Your task to perform on an android device: Show me popular games on the Play Store Image 0: 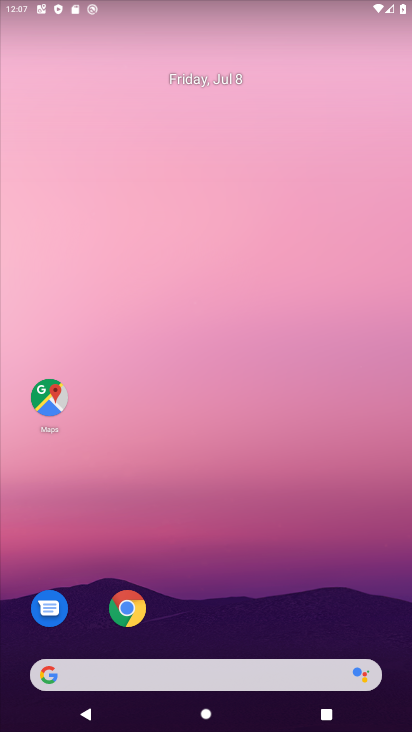
Step 0: drag from (53, 635) to (136, 214)
Your task to perform on an android device: Show me popular games on the Play Store Image 1: 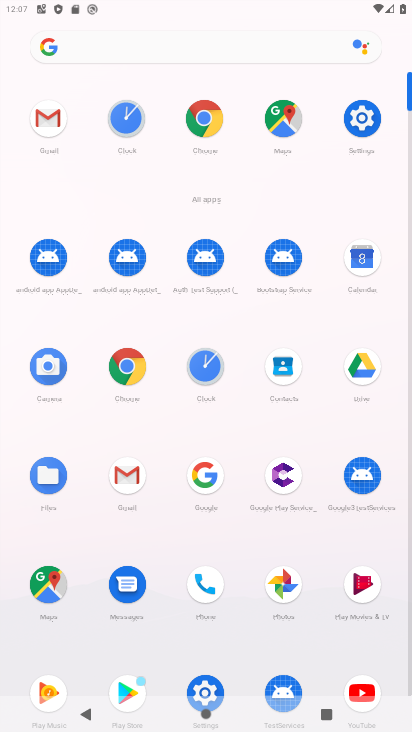
Step 1: click (135, 687)
Your task to perform on an android device: Show me popular games on the Play Store Image 2: 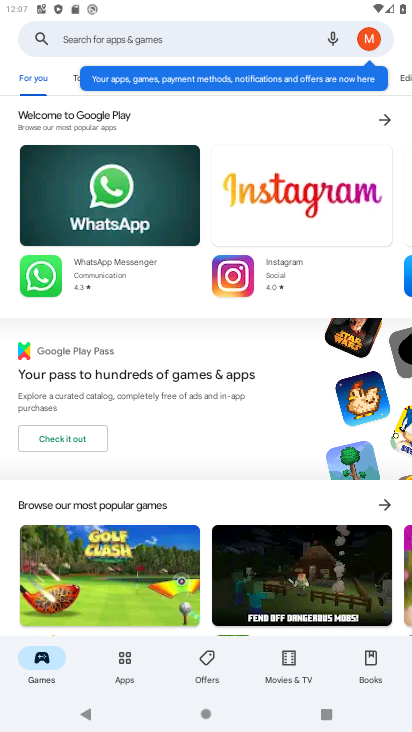
Step 2: click (88, 42)
Your task to perform on an android device: Show me popular games on the Play Store Image 3: 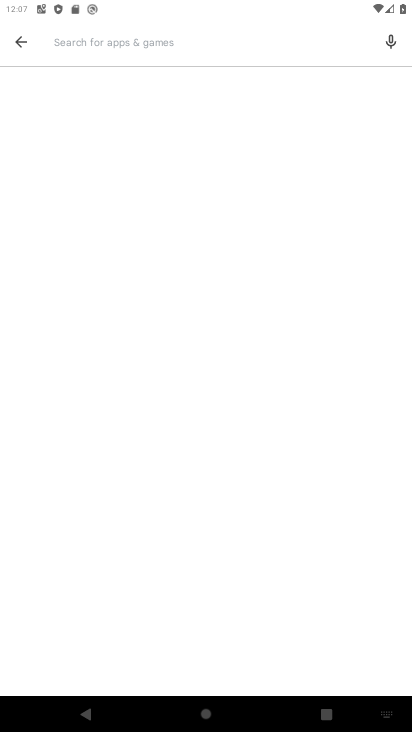
Step 3: type "popular games "
Your task to perform on an android device: Show me popular games on the Play Store Image 4: 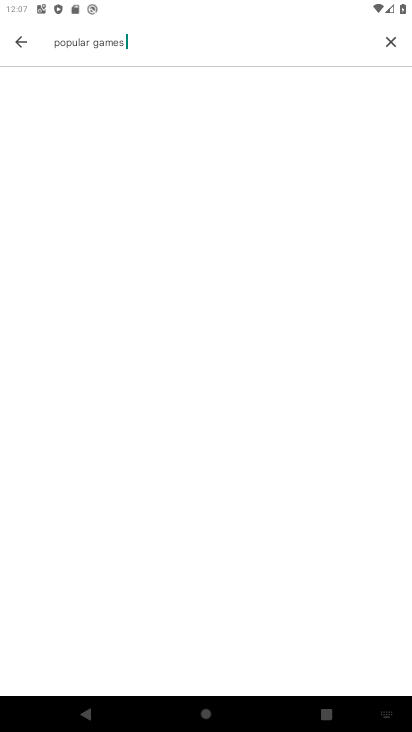
Step 4: type ""
Your task to perform on an android device: Show me popular games on the Play Store Image 5: 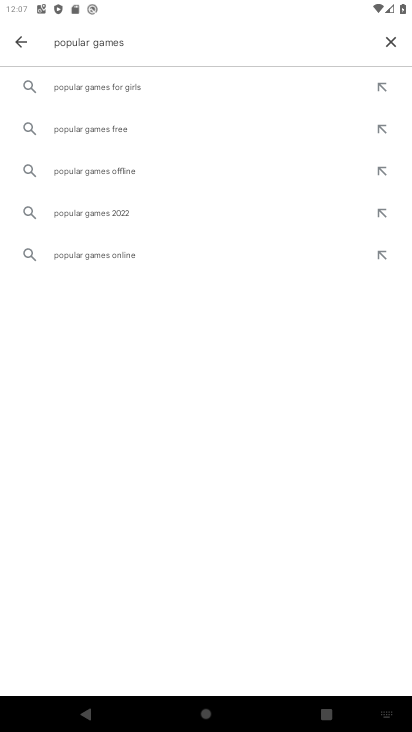
Step 5: type ""
Your task to perform on an android device: Show me popular games on the Play Store Image 6: 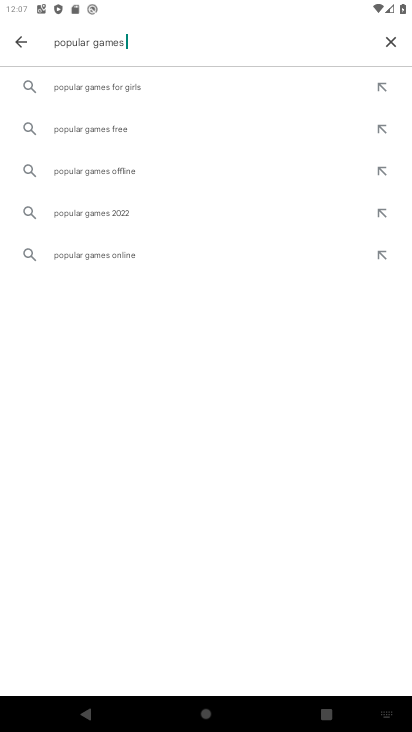
Step 6: task complete